Your task to perform on an android device: change keyboard looks Image 0: 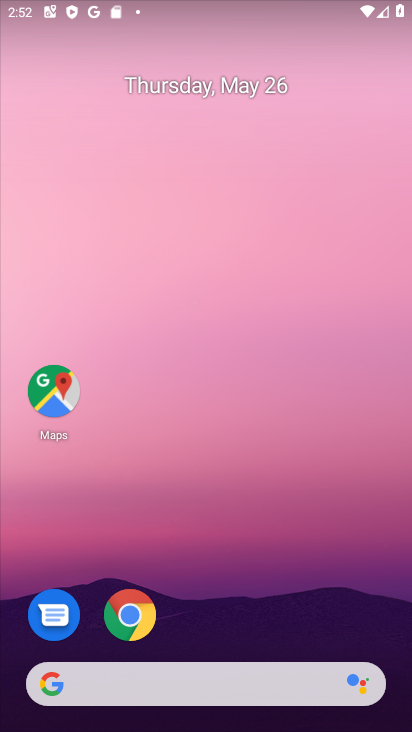
Step 0: drag from (188, 601) to (221, 12)
Your task to perform on an android device: change keyboard looks Image 1: 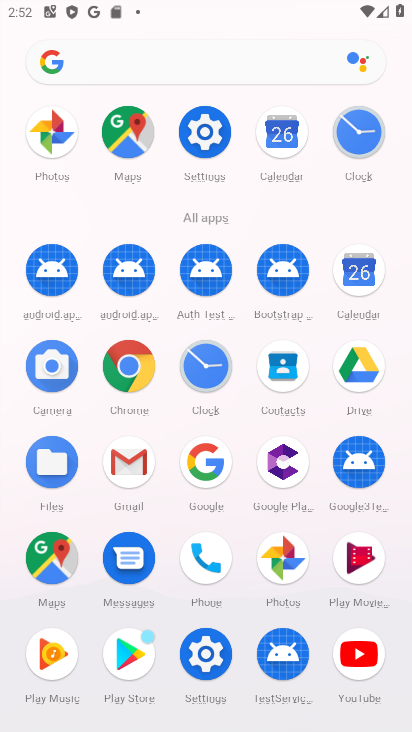
Step 1: click (194, 162)
Your task to perform on an android device: change keyboard looks Image 2: 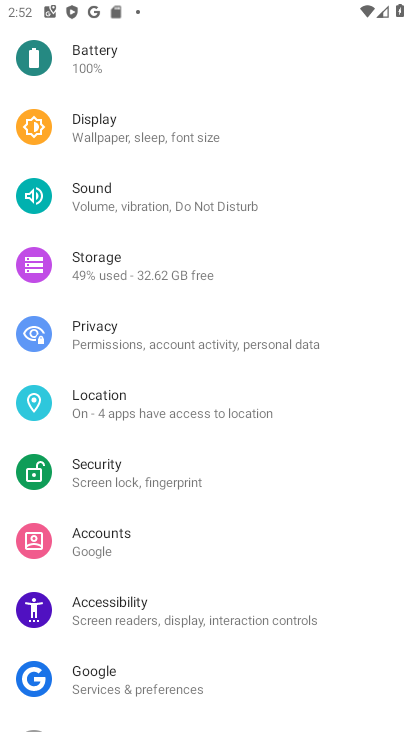
Step 2: drag from (116, 688) to (185, 447)
Your task to perform on an android device: change keyboard looks Image 3: 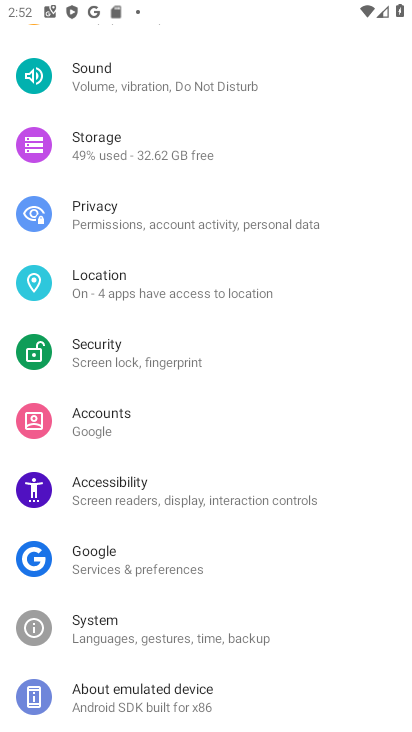
Step 3: click (114, 636)
Your task to perform on an android device: change keyboard looks Image 4: 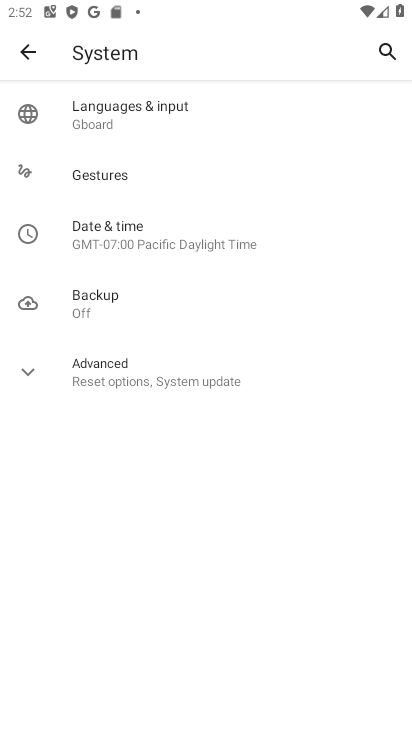
Step 4: click (126, 106)
Your task to perform on an android device: change keyboard looks Image 5: 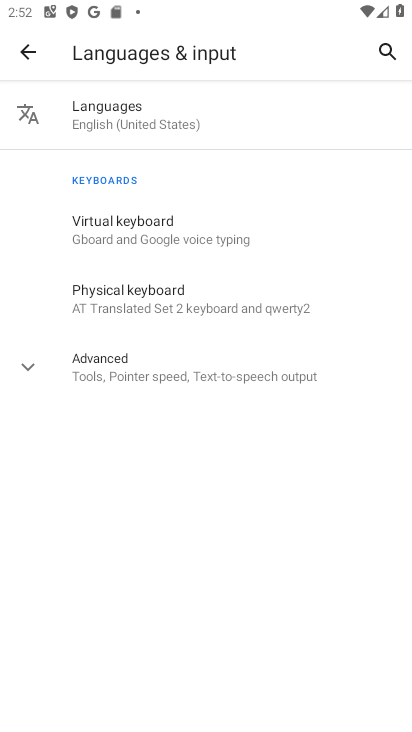
Step 5: click (111, 137)
Your task to perform on an android device: change keyboard looks Image 6: 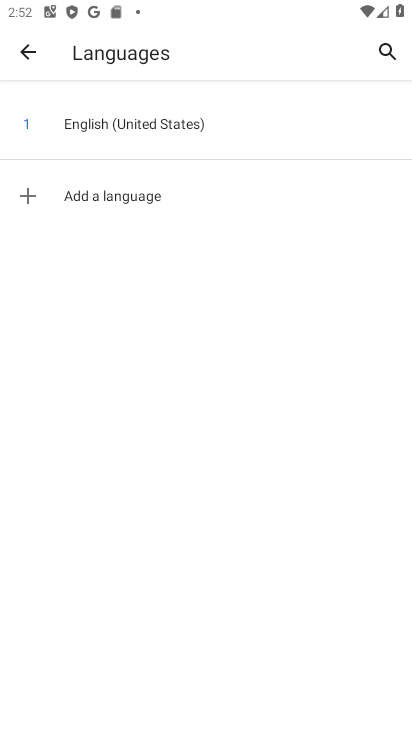
Step 6: click (30, 53)
Your task to perform on an android device: change keyboard looks Image 7: 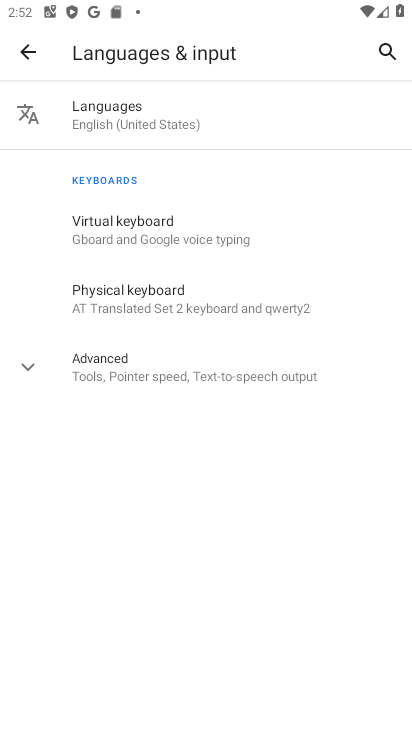
Step 7: click (108, 231)
Your task to perform on an android device: change keyboard looks Image 8: 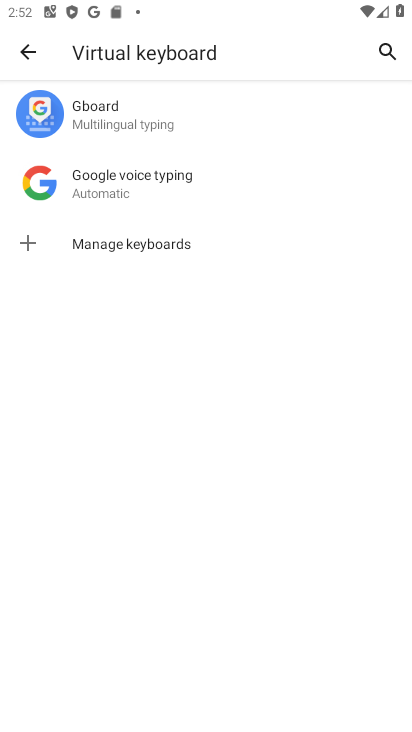
Step 8: click (101, 135)
Your task to perform on an android device: change keyboard looks Image 9: 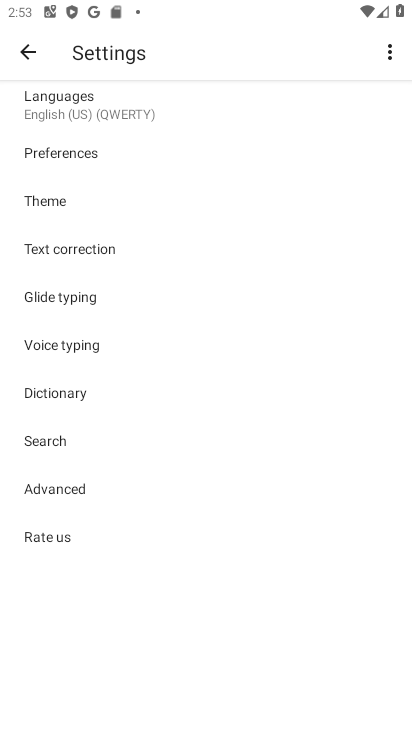
Step 9: click (56, 203)
Your task to perform on an android device: change keyboard looks Image 10: 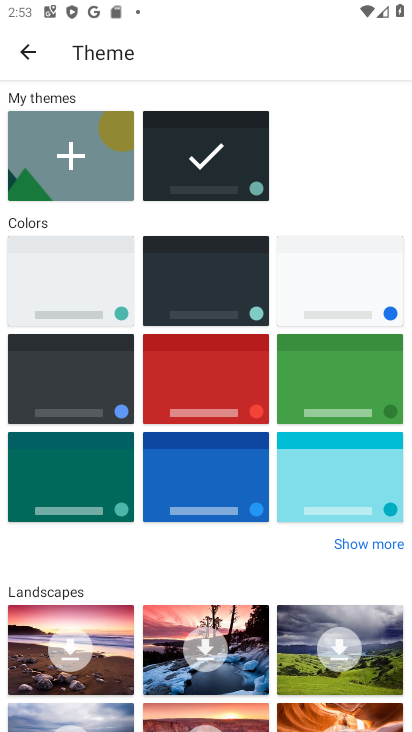
Step 10: click (200, 338)
Your task to perform on an android device: change keyboard looks Image 11: 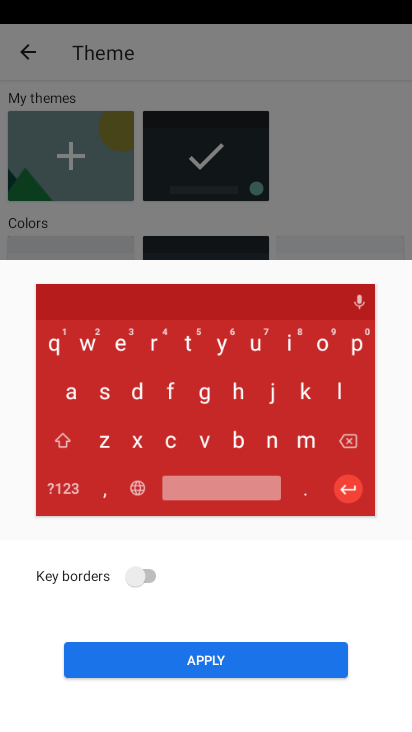
Step 11: click (207, 678)
Your task to perform on an android device: change keyboard looks Image 12: 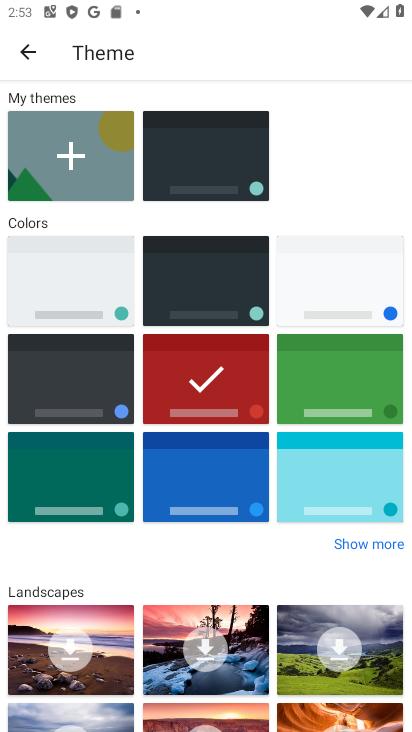
Step 12: task complete